Your task to perform on an android device: open app "McDonald's" (install if not already installed), go to login, and select forgot password Image 0: 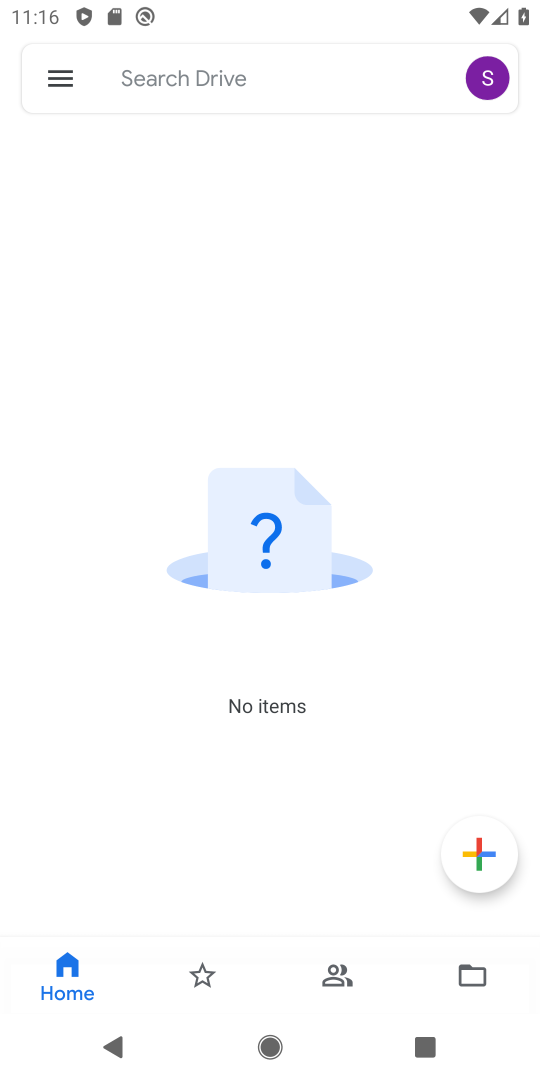
Step 0: press home button
Your task to perform on an android device: open app "McDonald's" (install if not already installed), go to login, and select forgot password Image 1: 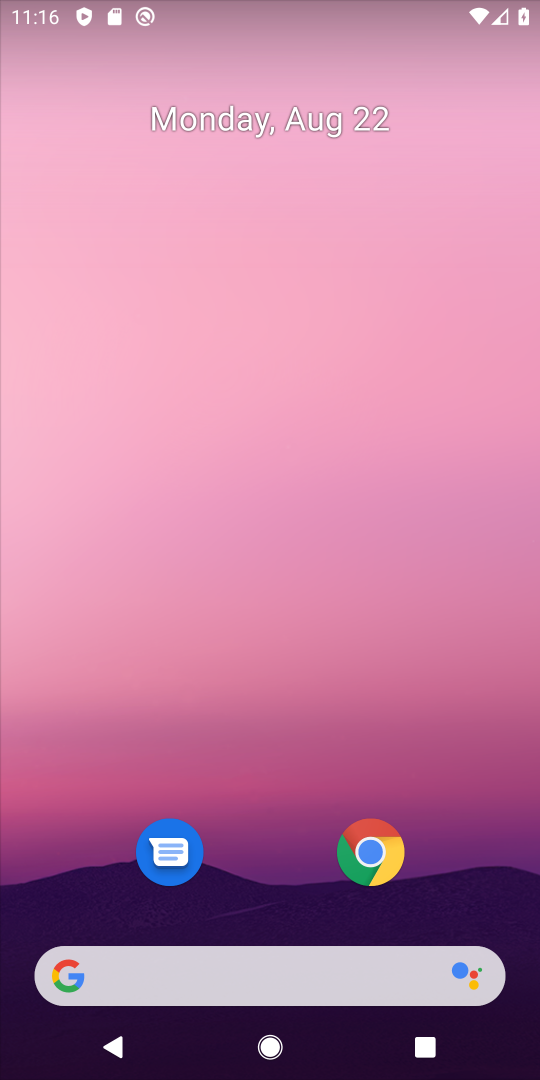
Step 1: drag from (266, 949) to (306, 124)
Your task to perform on an android device: open app "McDonald's" (install if not already installed), go to login, and select forgot password Image 2: 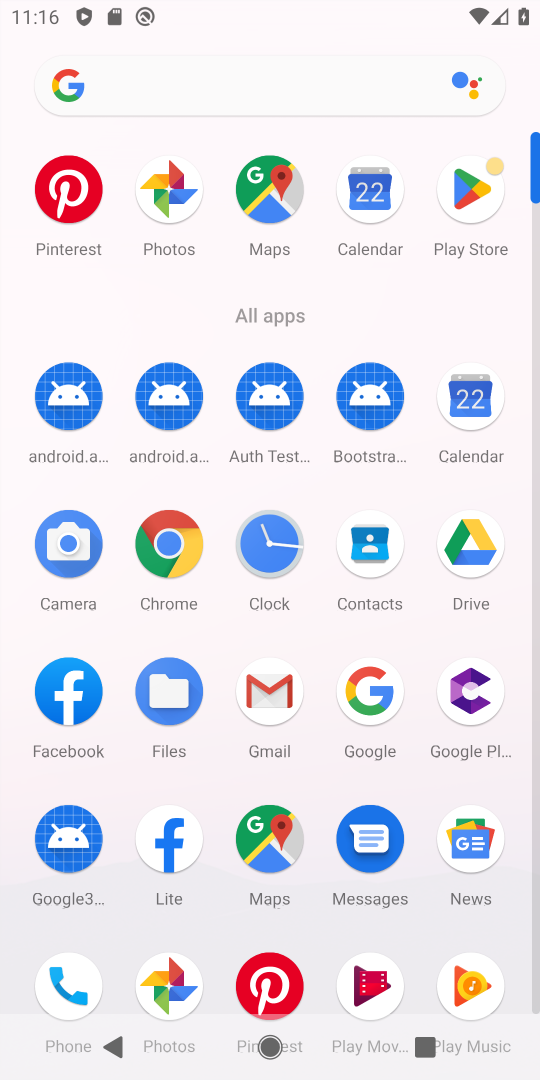
Step 2: click (475, 224)
Your task to perform on an android device: open app "McDonald's" (install if not already installed), go to login, and select forgot password Image 3: 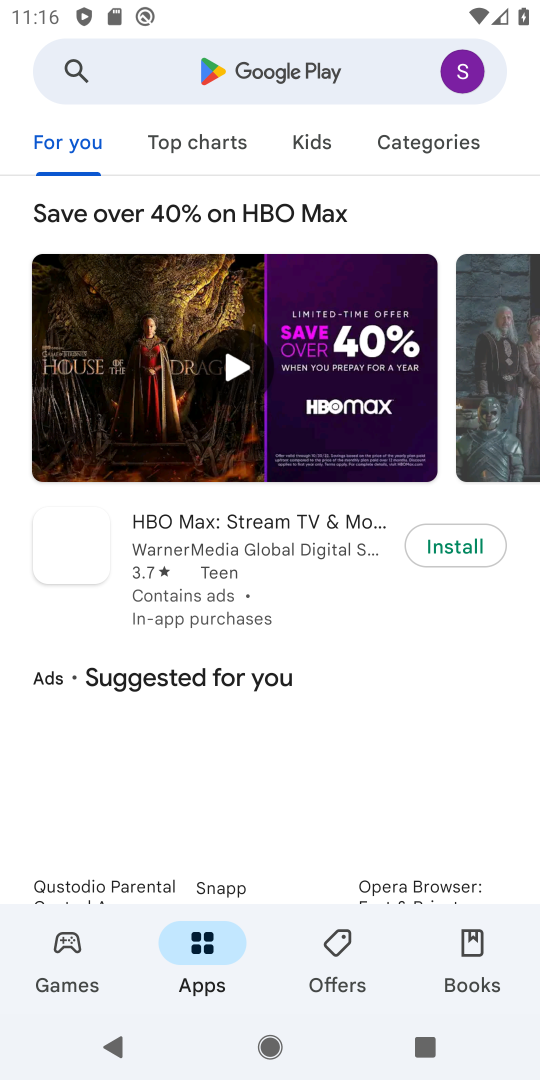
Step 3: click (205, 69)
Your task to perform on an android device: open app "McDonald's" (install if not already installed), go to login, and select forgot password Image 4: 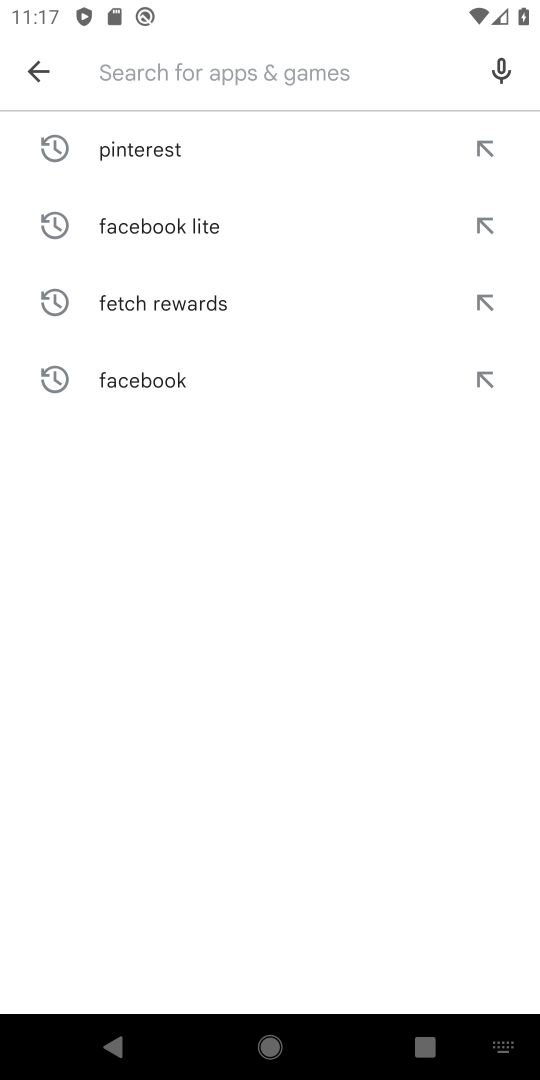
Step 4: type "Mcdonalds"
Your task to perform on an android device: open app "McDonald's" (install if not already installed), go to login, and select forgot password Image 5: 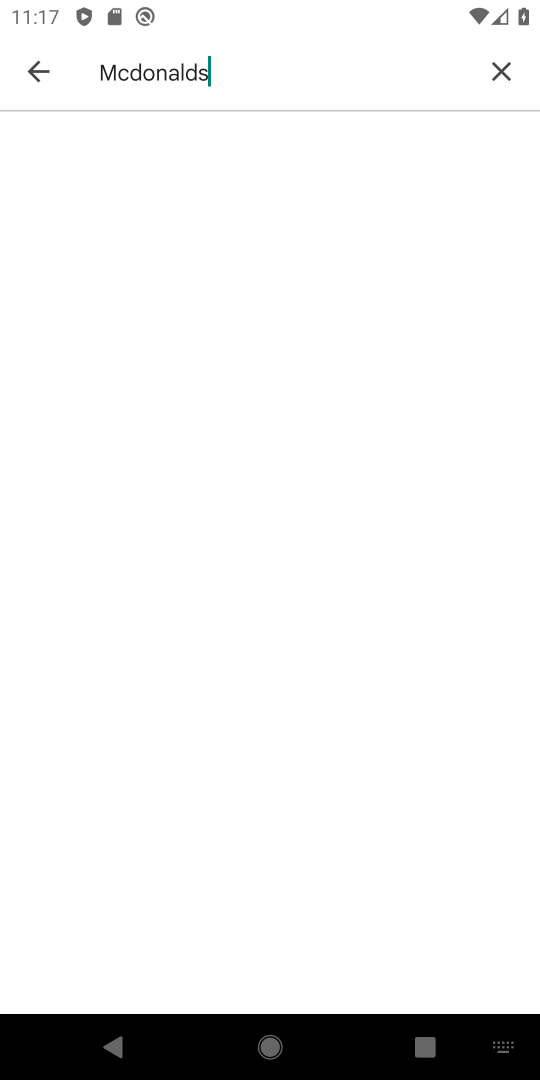
Step 5: click (124, 61)
Your task to perform on an android device: open app "McDonald's" (install if not already installed), go to login, and select forgot password Image 6: 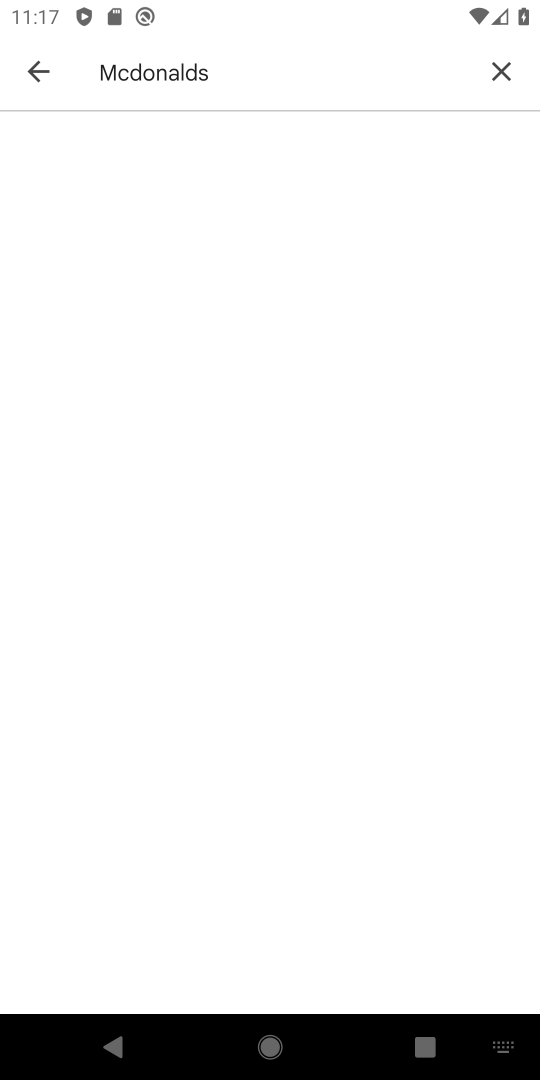
Step 6: type " "
Your task to perform on an android device: open app "McDonald's" (install if not already installed), go to login, and select forgot password Image 7: 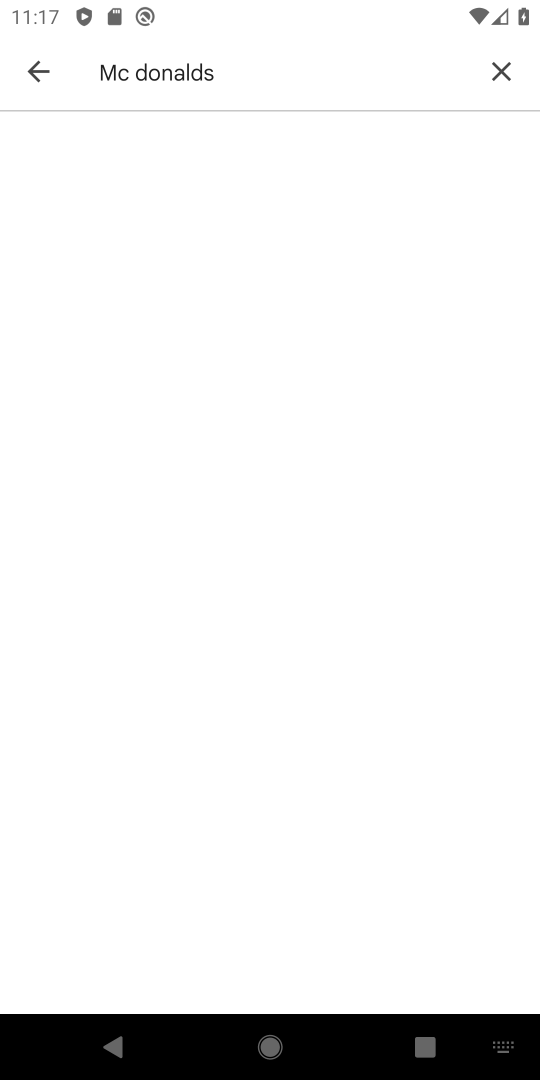
Step 7: click (499, 65)
Your task to perform on an android device: open app "McDonald's" (install if not already installed), go to login, and select forgot password Image 8: 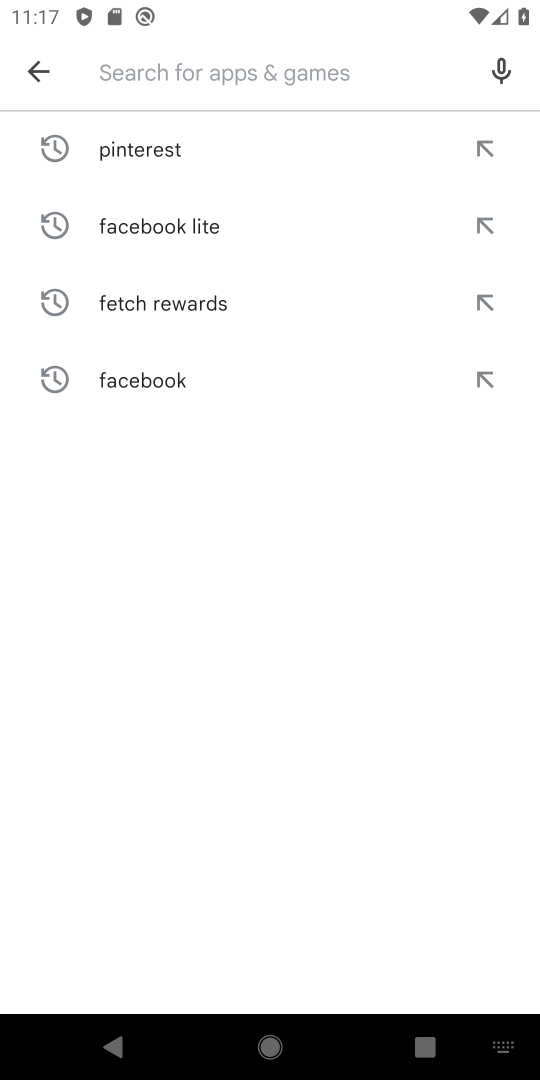
Step 8: click (18, 64)
Your task to perform on an android device: open app "McDonald's" (install if not already installed), go to login, and select forgot password Image 9: 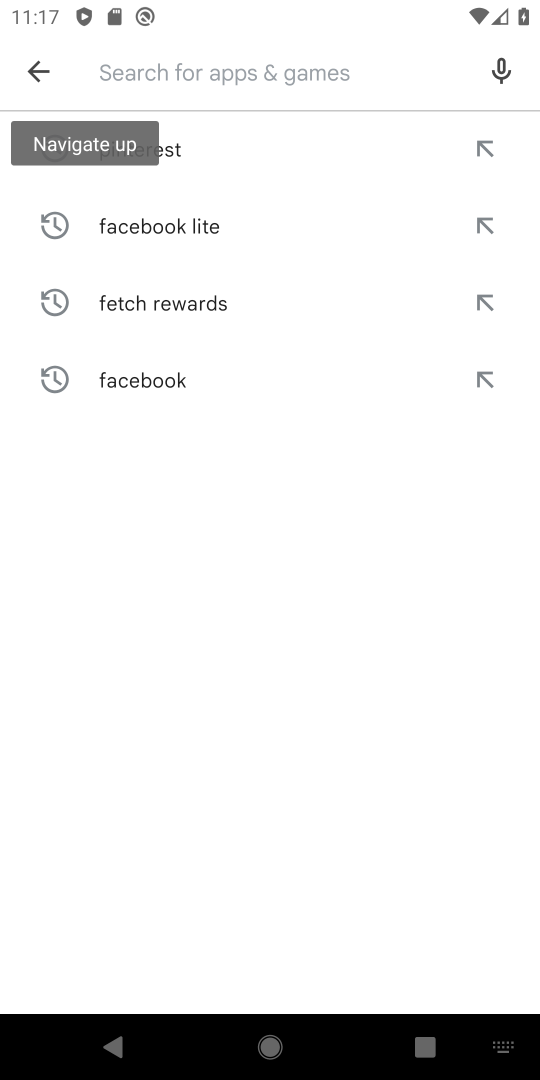
Step 9: click (33, 80)
Your task to perform on an android device: open app "McDonald's" (install if not already installed), go to login, and select forgot password Image 10: 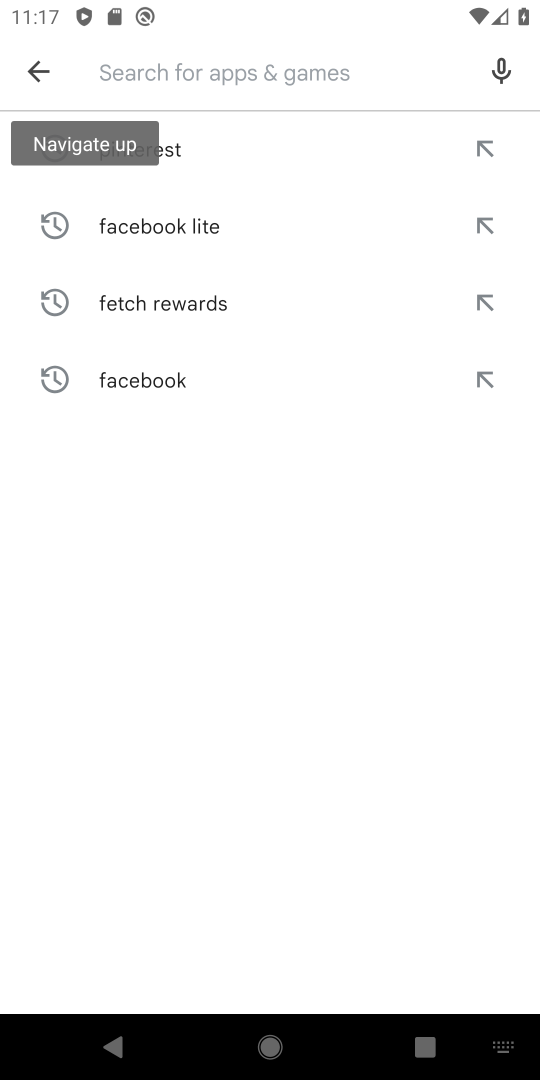
Step 10: click (29, 81)
Your task to perform on an android device: open app "McDonald's" (install if not already installed), go to login, and select forgot password Image 11: 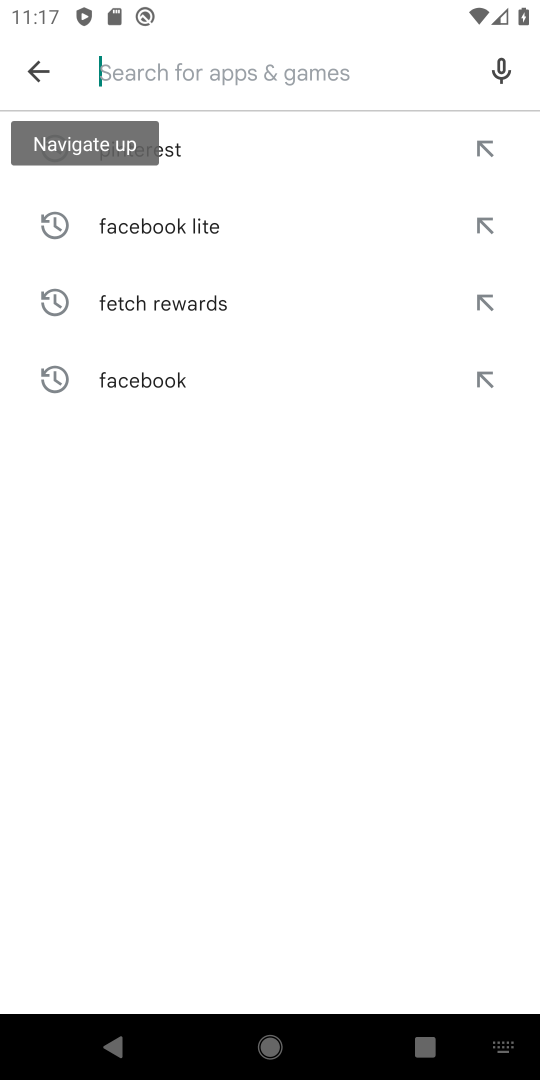
Step 11: click (18, 51)
Your task to perform on an android device: open app "McDonald's" (install if not already installed), go to login, and select forgot password Image 12: 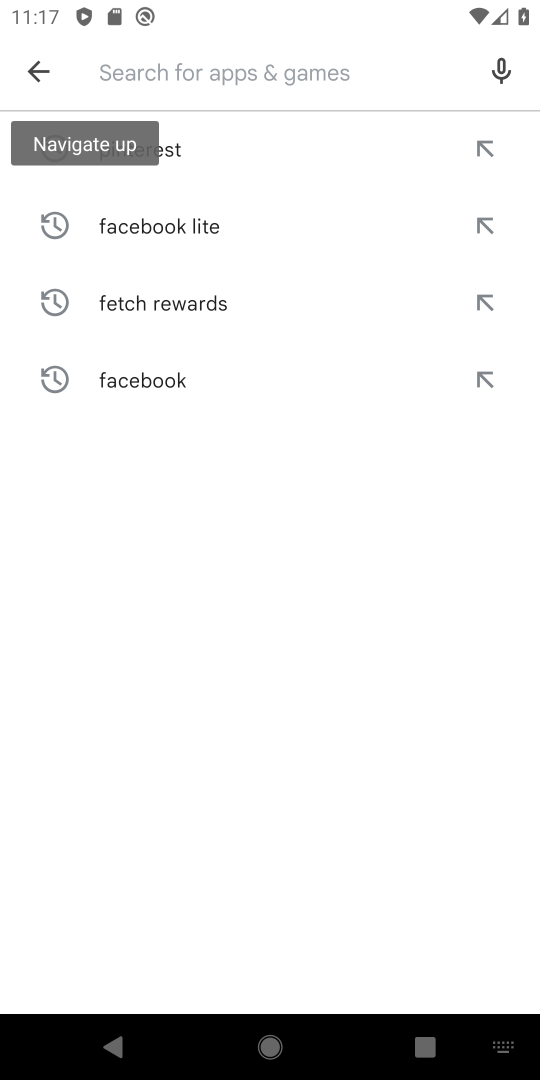
Step 12: click (38, 76)
Your task to perform on an android device: open app "McDonald's" (install if not already installed), go to login, and select forgot password Image 13: 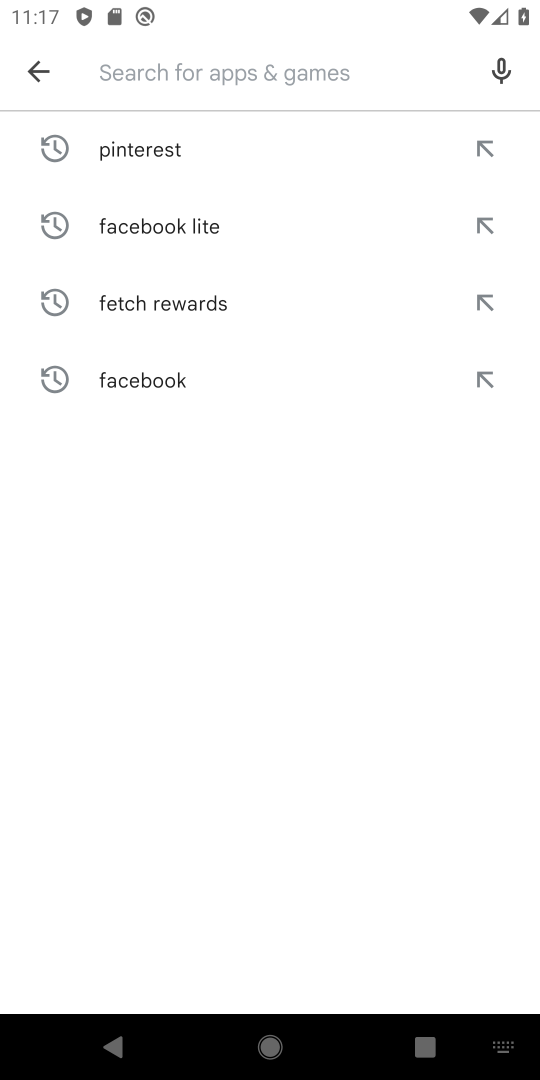
Step 13: press back button
Your task to perform on an android device: open app "McDonald's" (install if not already installed), go to login, and select forgot password Image 14: 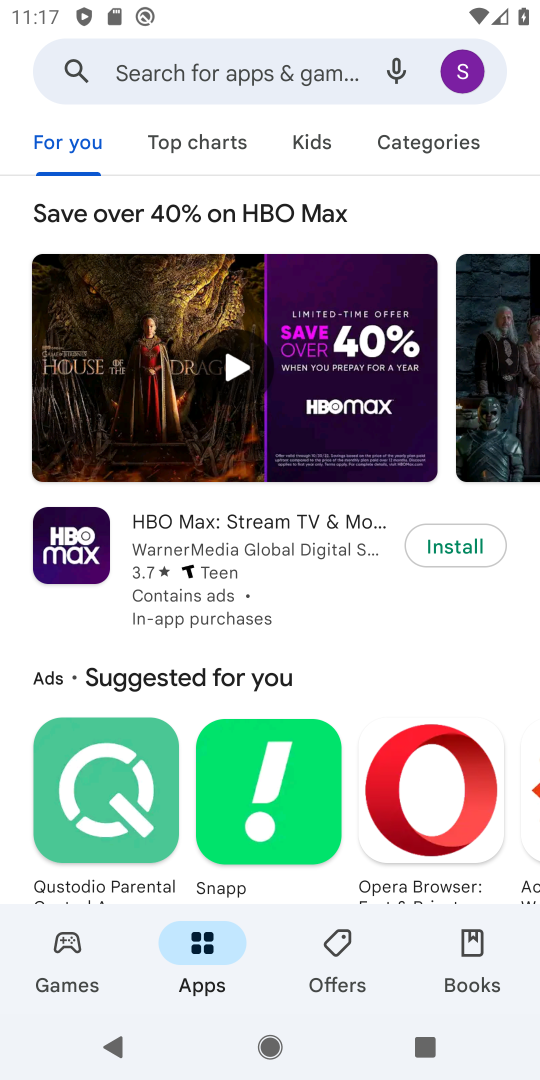
Step 14: click (238, 55)
Your task to perform on an android device: open app "McDonald's" (install if not already installed), go to login, and select forgot password Image 15: 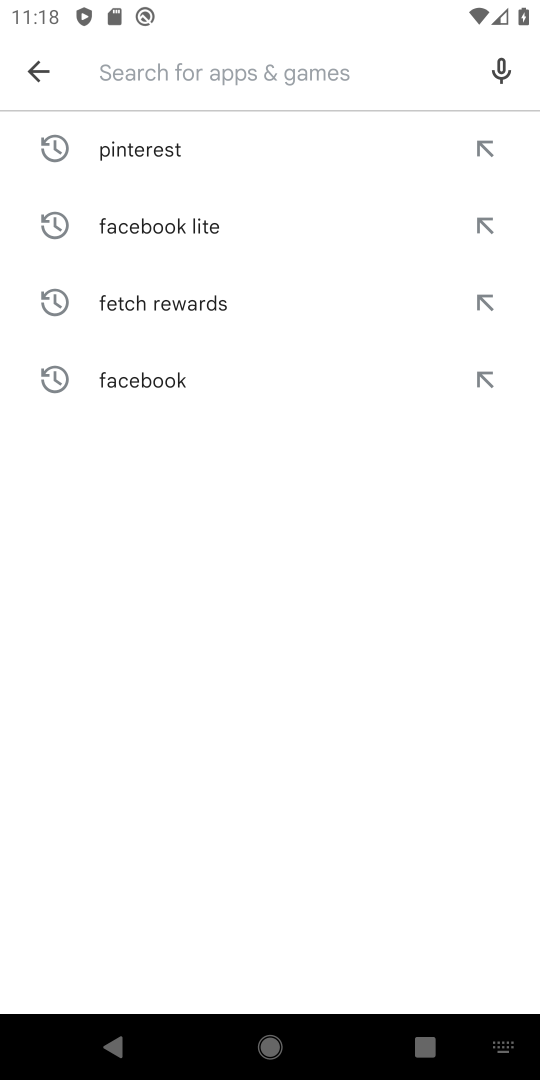
Step 15: type "McDonalds"
Your task to perform on an android device: open app "McDonald's" (install if not already installed), go to login, and select forgot password Image 16: 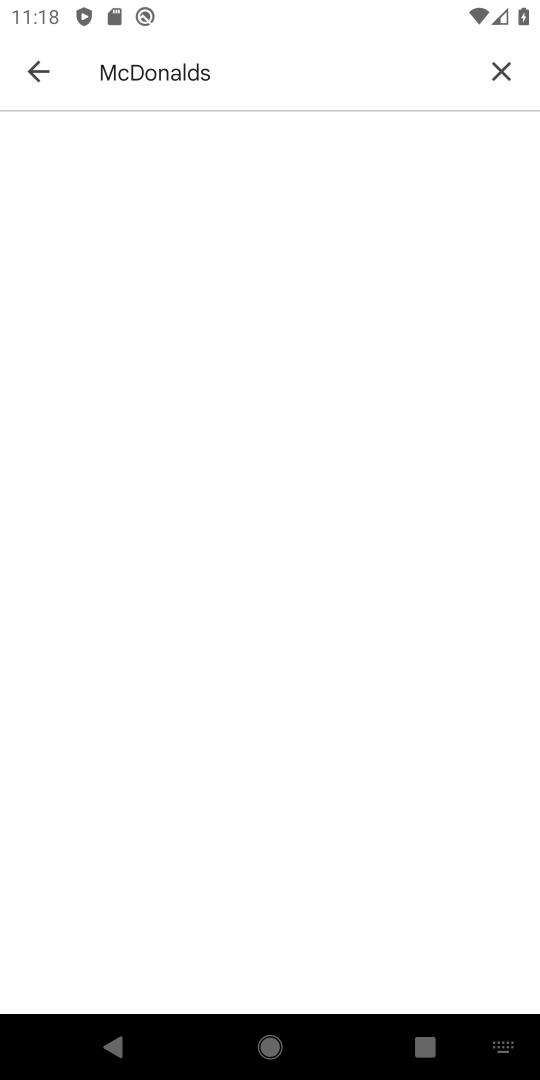
Step 16: click (214, 158)
Your task to perform on an android device: open app "McDonald's" (install if not already installed), go to login, and select forgot password Image 17: 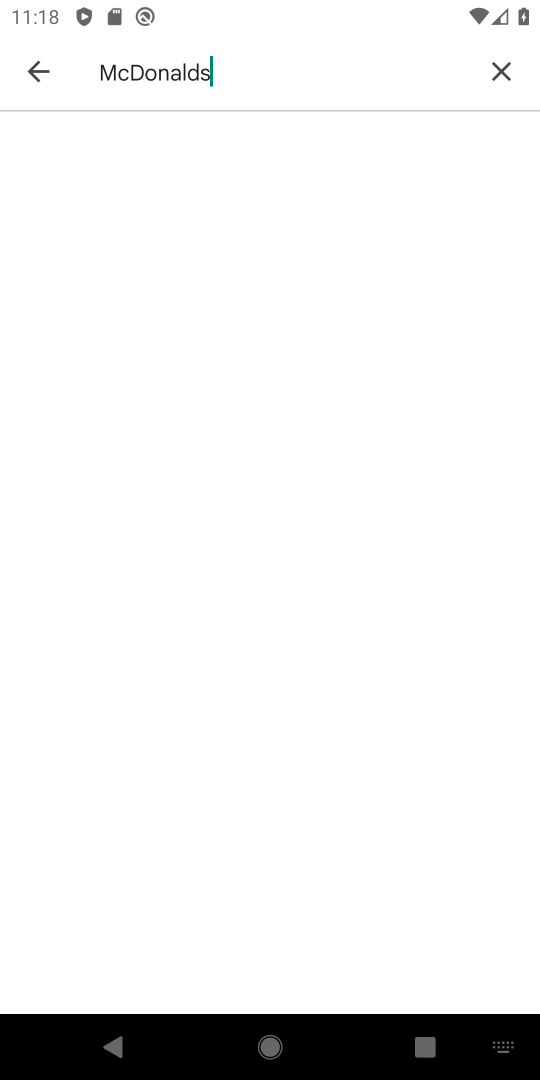
Step 17: click (221, 237)
Your task to perform on an android device: open app "McDonald's" (install if not already installed), go to login, and select forgot password Image 18: 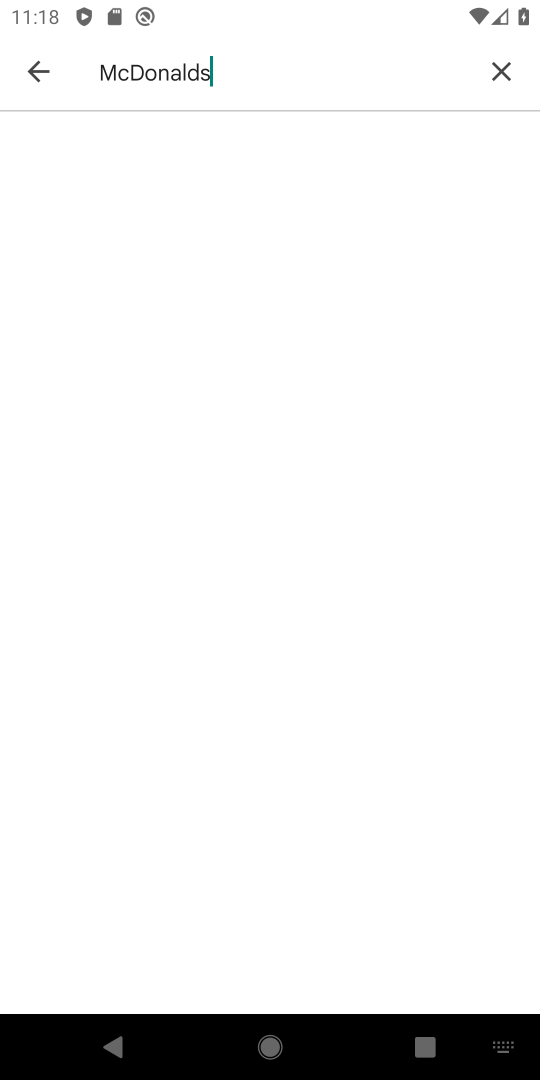
Step 18: task complete